Your task to perform on an android device: toggle notifications settings in the gmail app Image 0: 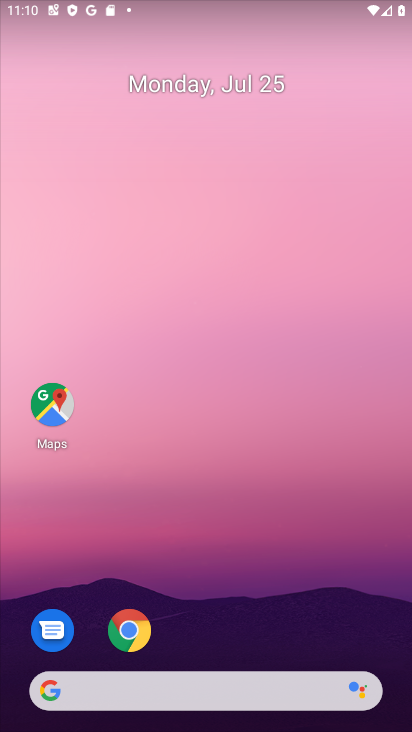
Step 0: drag from (236, 675) to (234, 125)
Your task to perform on an android device: toggle notifications settings in the gmail app Image 1: 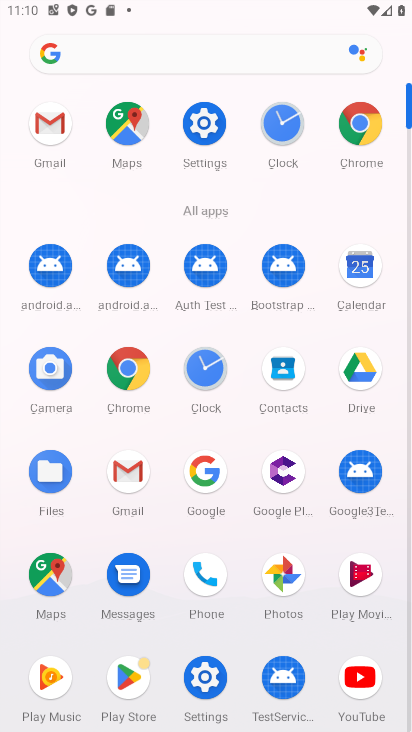
Step 1: click (50, 132)
Your task to perform on an android device: toggle notifications settings in the gmail app Image 2: 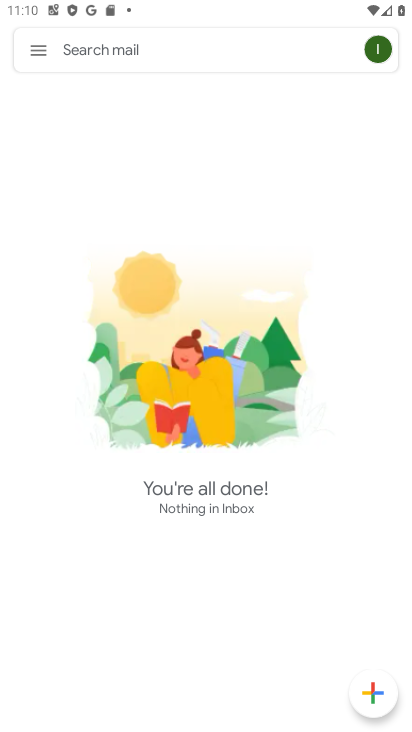
Step 2: click (38, 62)
Your task to perform on an android device: toggle notifications settings in the gmail app Image 3: 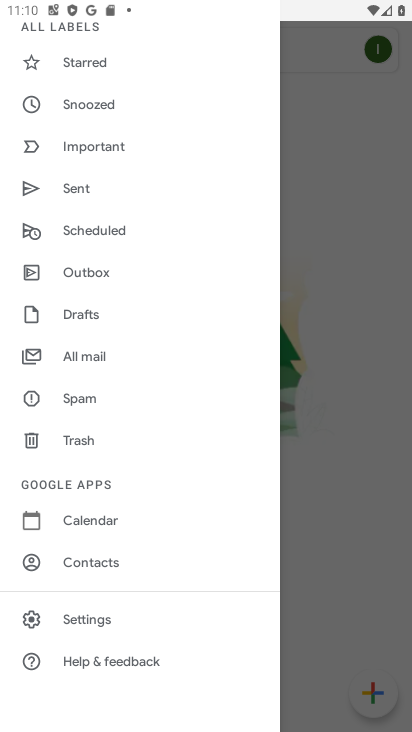
Step 3: click (96, 620)
Your task to perform on an android device: toggle notifications settings in the gmail app Image 4: 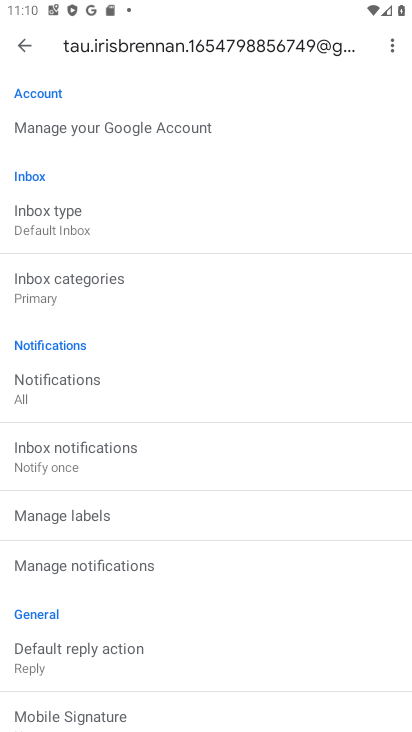
Step 4: click (22, 43)
Your task to perform on an android device: toggle notifications settings in the gmail app Image 5: 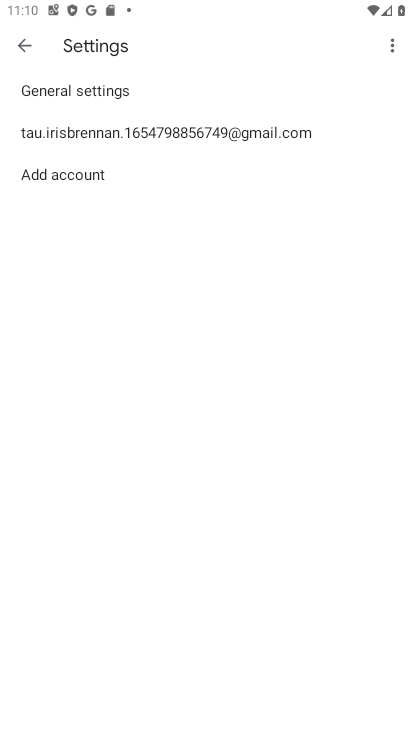
Step 5: click (32, 88)
Your task to perform on an android device: toggle notifications settings in the gmail app Image 6: 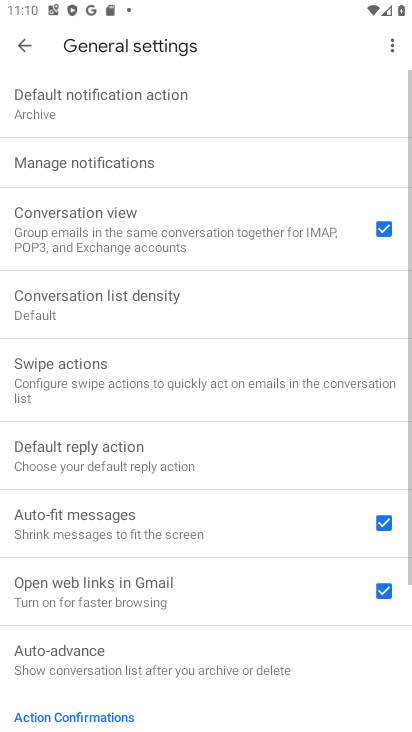
Step 6: click (67, 169)
Your task to perform on an android device: toggle notifications settings in the gmail app Image 7: 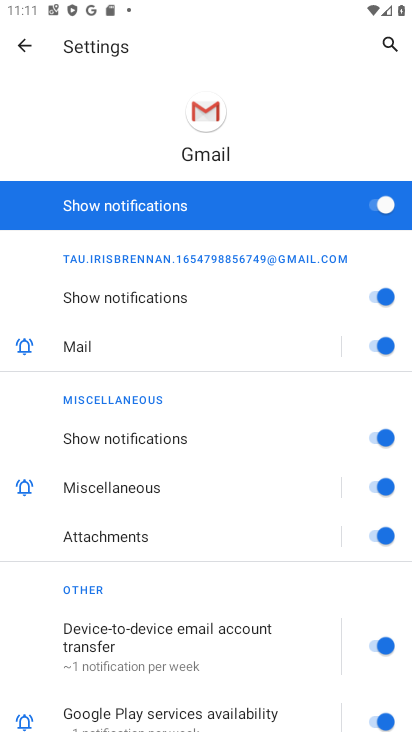
Step 7: click (377, 216)
Your task to perform on an android device: toggle notifications settings in the gmail app Image 8: 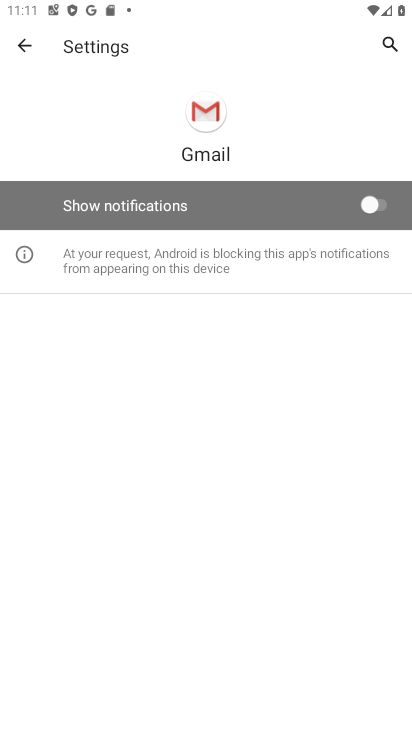
Step 8: task complete